Your task to perform on an android device: Open the Play Movies app and select the watchlist tab. Image 0: 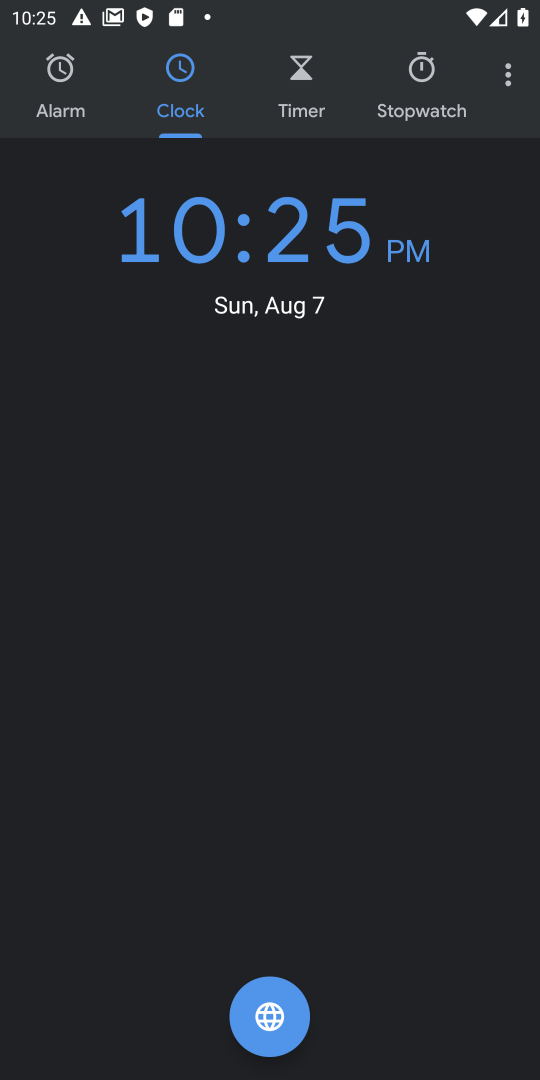
Step 0: press home button
Your task to perform on an android device: Open the Play Movies app and select the watchlist tab. Image 1: 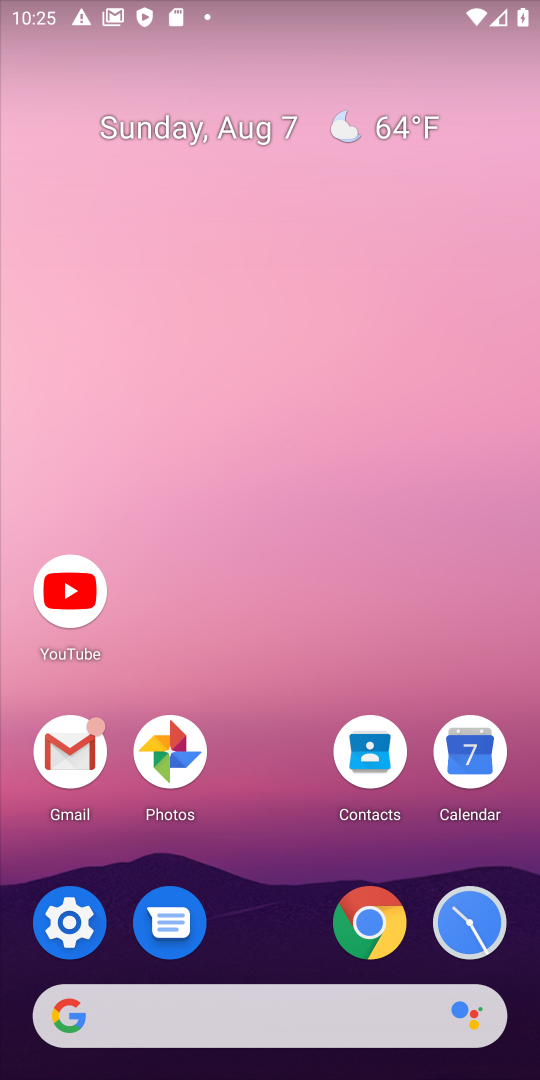
Step 1: drag from (268, 904) to (284, 20)
Your task to perform on an android device: Open the Play Movies app and select the watchlist tab. Image 2: 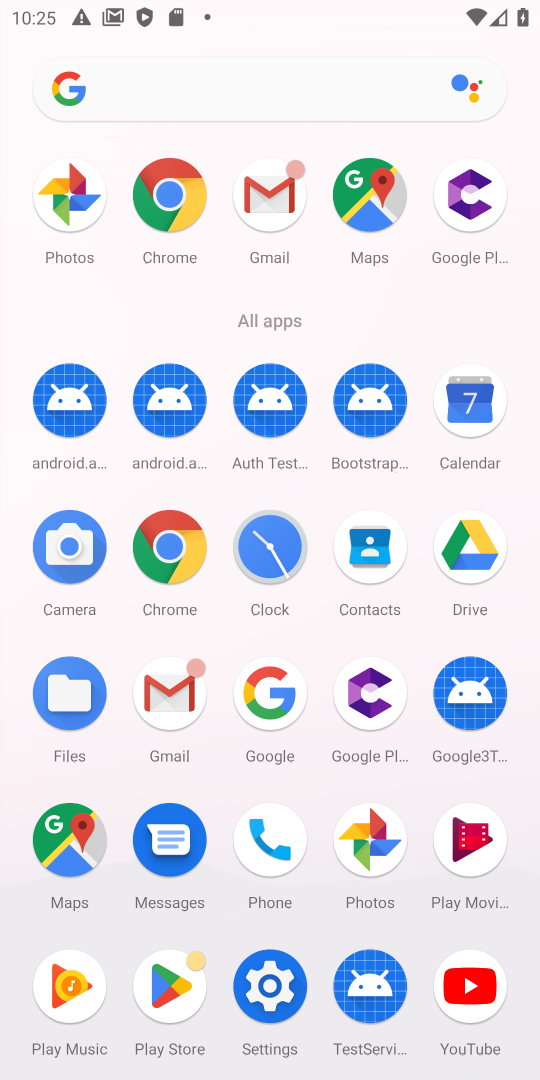
Step 2: click (471, 845)
Your task to perform on an android device: Open the Play Movies app and select the watchlist tab. Image 3: 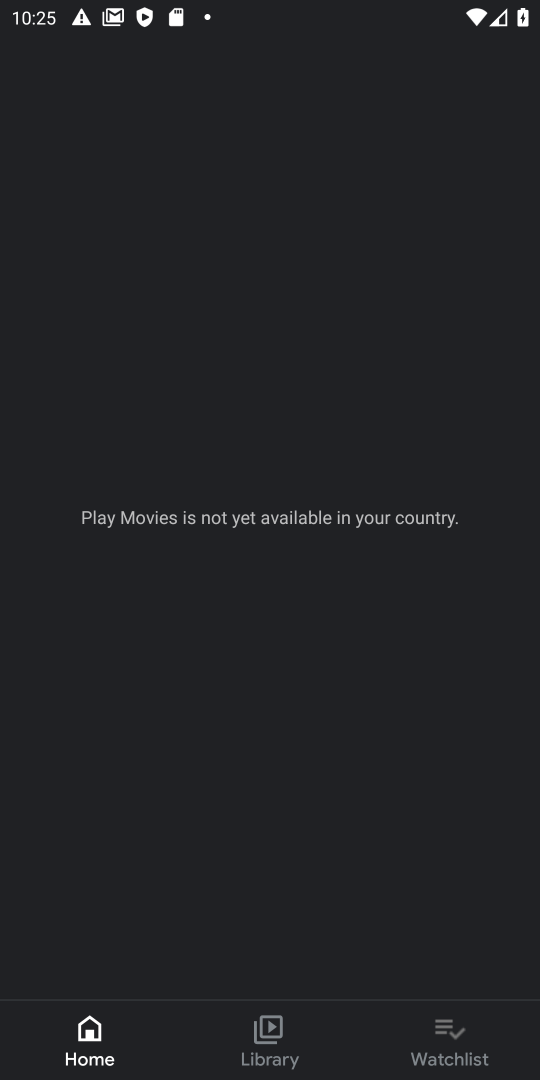
Step 3: click (446, 1033)
Your task to perform on an android device: Open the Play Movies app and select the watchlist tab. Image 4: 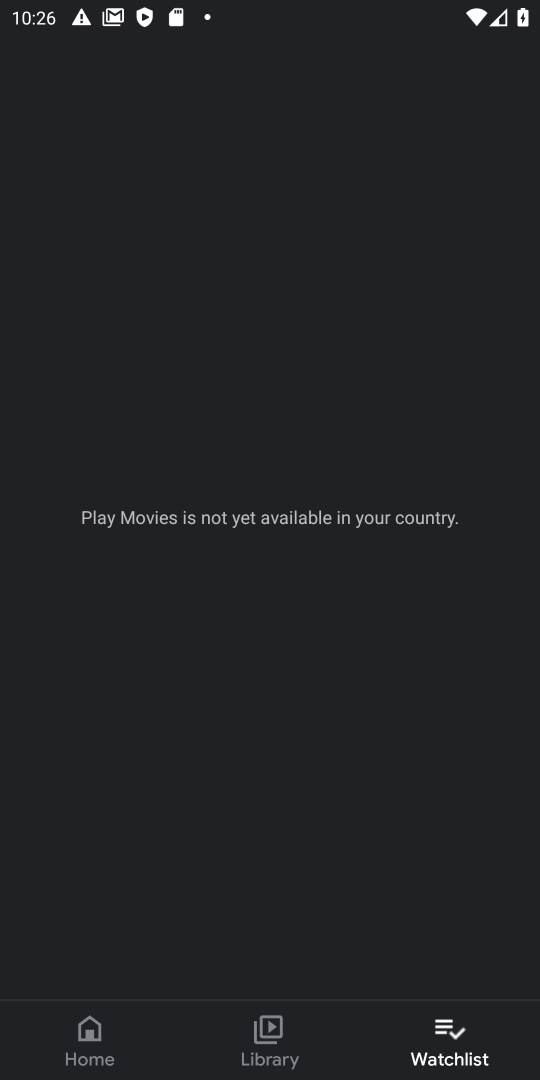
Step 4: task complete